Your task to perform on an android device: Go to Reddit.com Image 0: 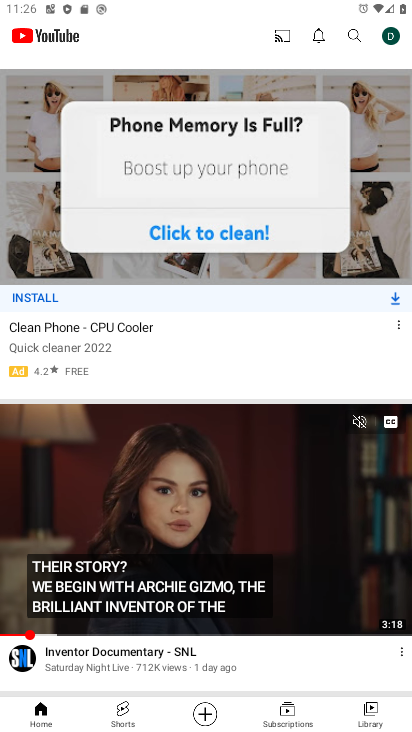
Step 0: press home button
Your task to perform on an android device: Go to Reddit.com Image 1: 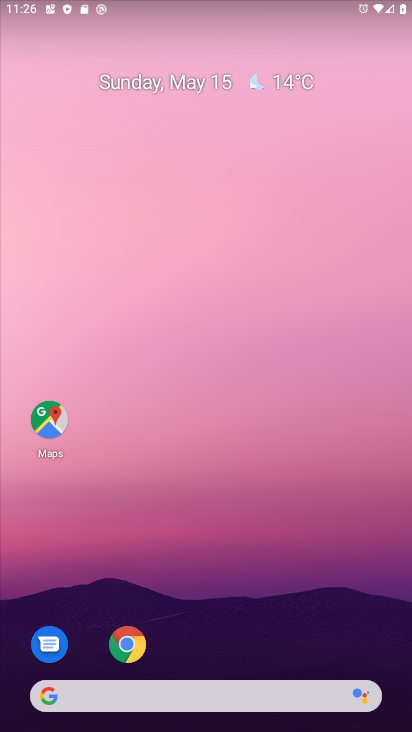
Step 1: drag from (217, 529) to (109, 10)
Your task to perform on an android device: Go to Reddit.com Image 2: 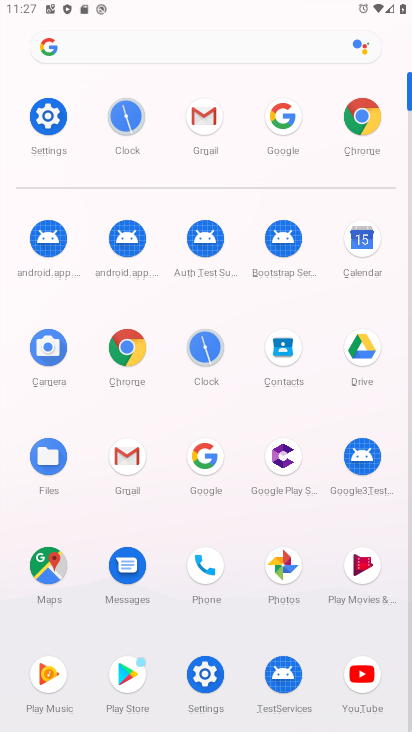
Step 2: click (124, 342)
Your task to perform on an android device: Go to Reddit.com Image 3: 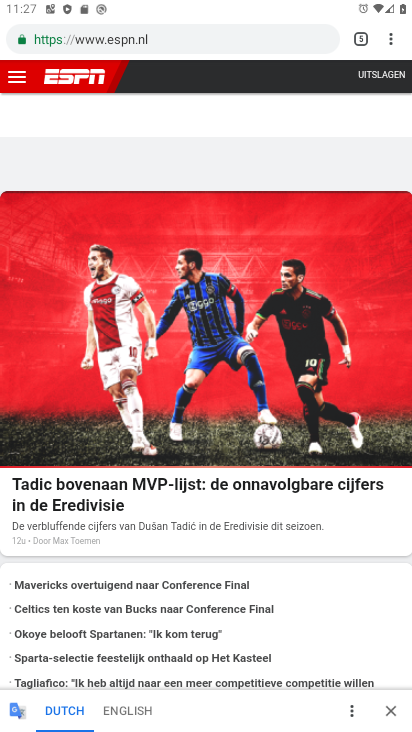
Step 3: click (165, 41)
Your task to perform on an android device: Go to Reddit.com Image 4: 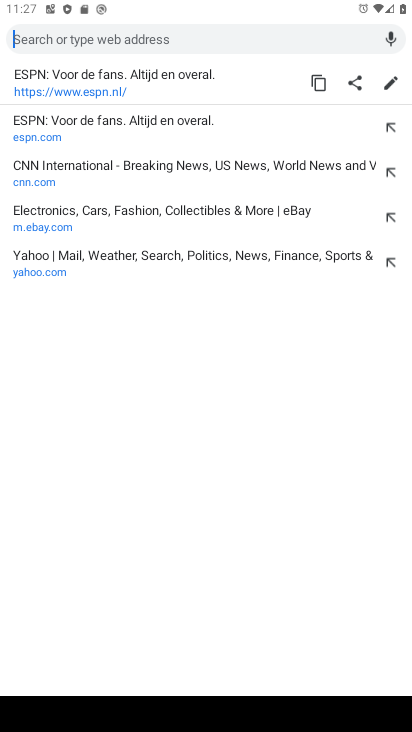
Step 4: type "Reddit.com"
Your task to perform on an android device: Go to Reddit.com Image 5: 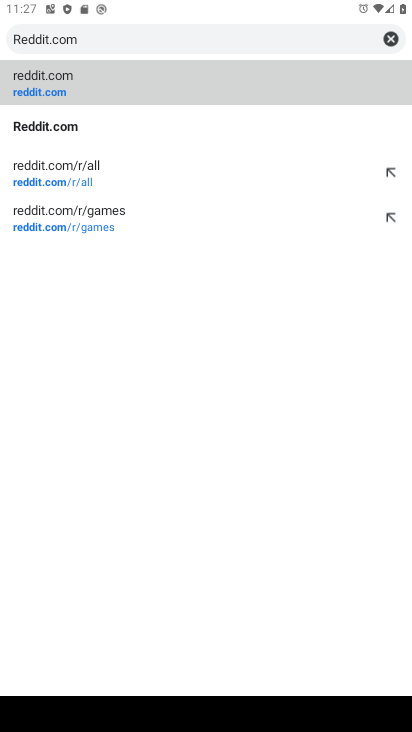
Step 5: click (110, 93)
Your task to perform on an android device: Go to Reddit.com Image 6: 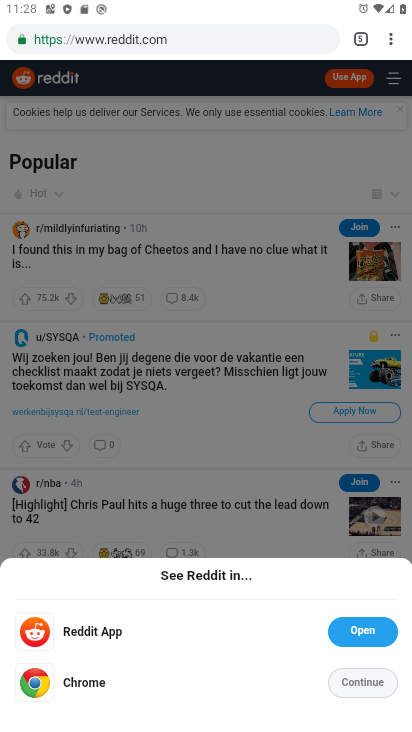
Step 6: task complete